Your task to perform on an android device: visit the assistant section in the google photos Image 0: 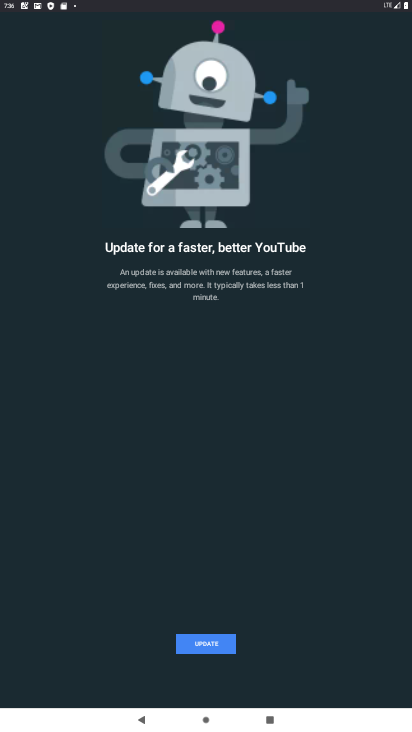
Step 0: press back button
Your task to perform on an android device: visit the assistant section in the google photos Image 1: 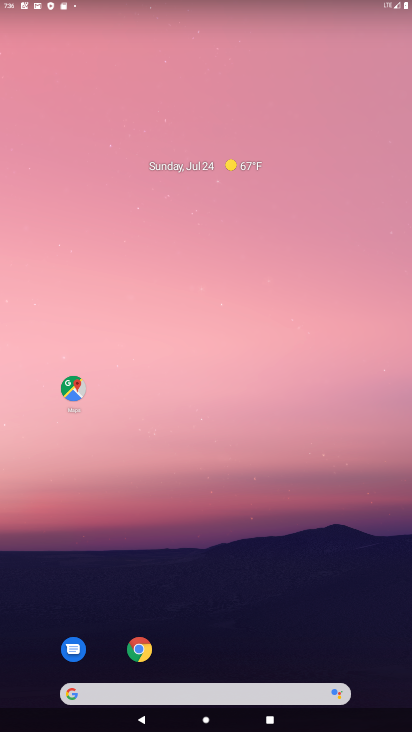
Step 1: drag from (299, 660) to (232, 184)
Your task to perform on an android device: visit the assistant section in the google photos Image 2: 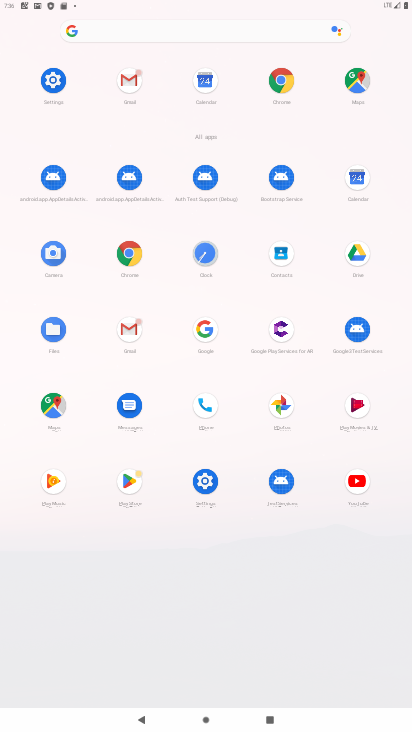
Step 2: click (272, 411)
Your task to perform on an android device: visit the assistant section in the google photos Image 3: 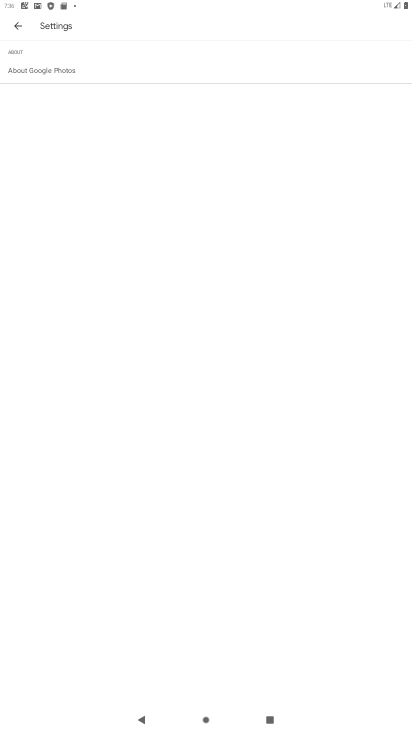
Step 3: press home button
Your task to perform on an android device: visit the assistant section in the google photos Image 4: 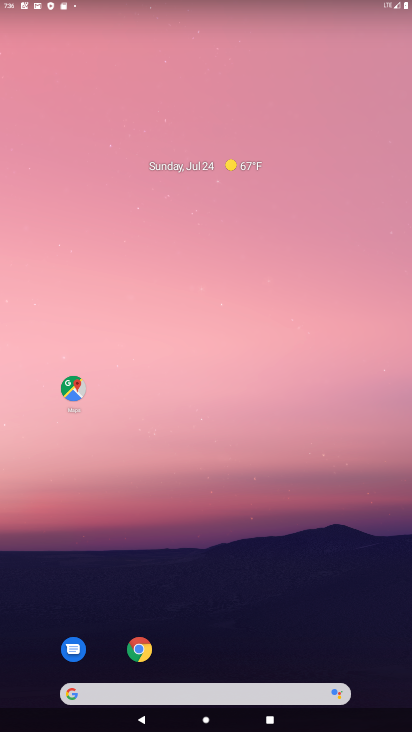
Step 4: drag from (220, 675) to (201, 166)
Your task to perform on an android device: visit the assistant section in the google photos Image 5: 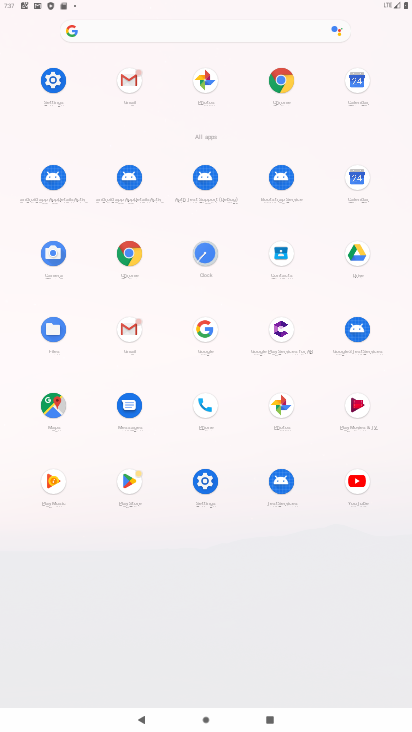
Step 5: click (269, 400)
Your task to perform on an android device: visit the assistant section in the google photos Image 6: 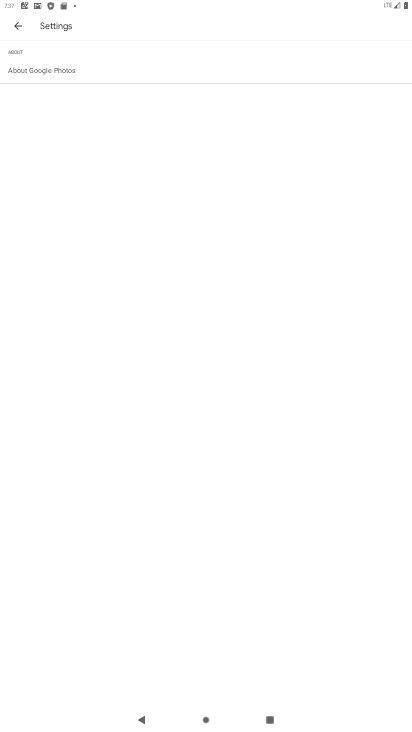
Step 6: click (22, 28)
Your task to perform on an android device: visit the assistant section in the google photos Image 7: 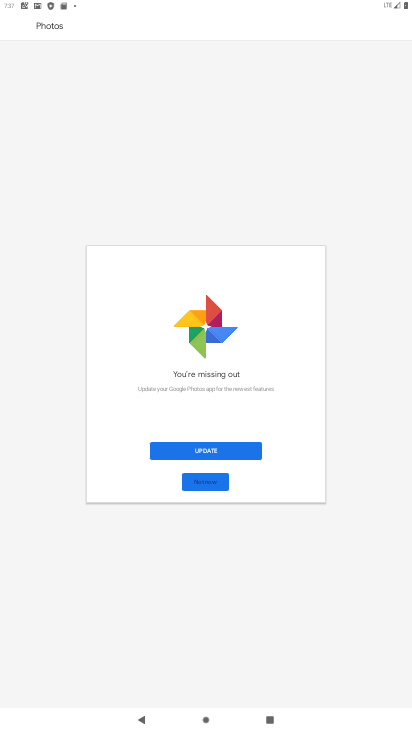
Step 7: click (201, 478)
Your task to perform on an android device: visit the assistant section in the google photos Image 8: 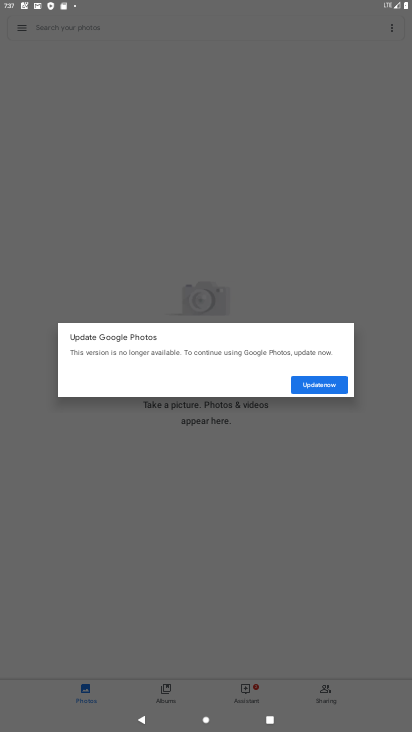
Step 8: click (309, 388)
Your task to perform on an android device: visit the assistant section in the google photos Image 9: 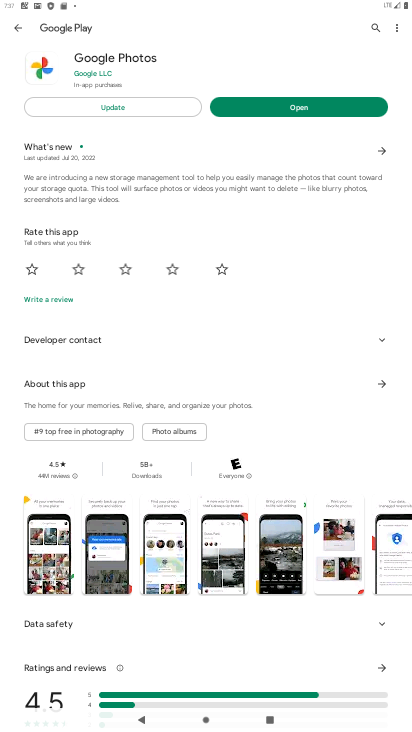
Step 9: click (250, 114)
Your task to perform on an android device: visit the assistant section in the google photos Image 10: 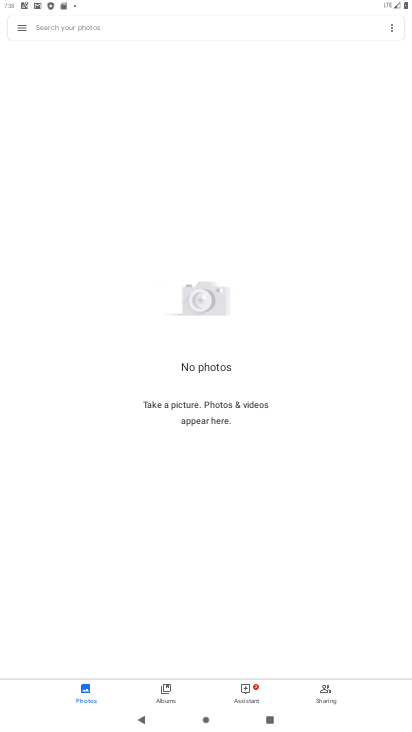
Step 10: click (240, 683)
Your task to perform on an android device: visit the assistant section in the google photos Image 11: 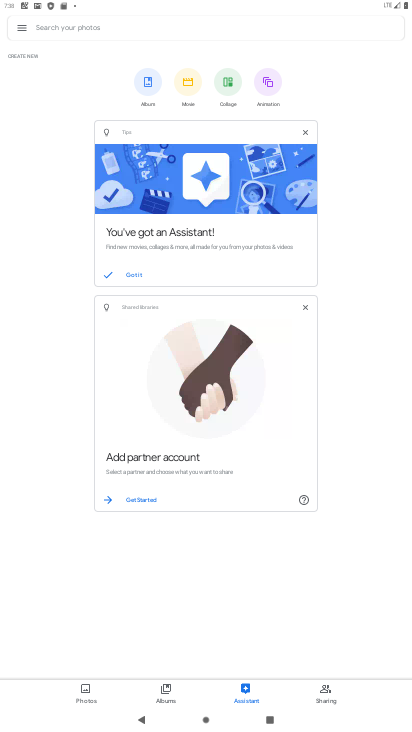
Step 11: task complete